Your task to perform on an android device: turn pop-ups off in chrome Image 0: 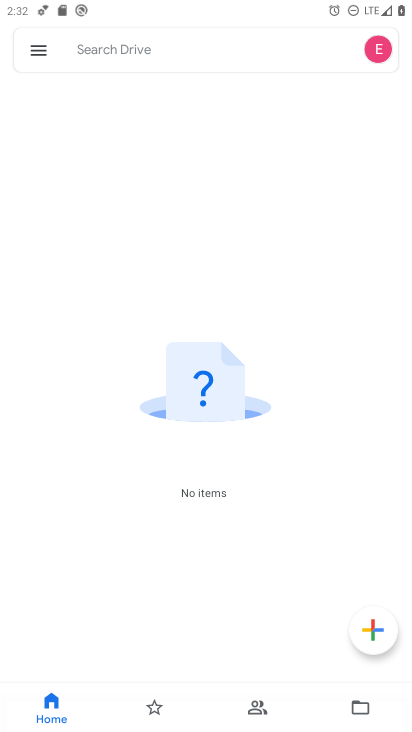
Step 0: press home button
Your task to perform on an android device: turn pop-ups off in chrome Image 1: 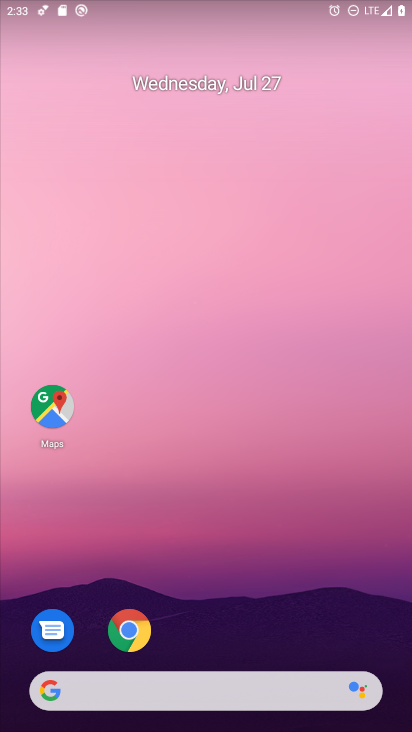
Step 1: click (131, 634)
Your task to perform on an android device: turn pop-ups off in chrome Image 2: 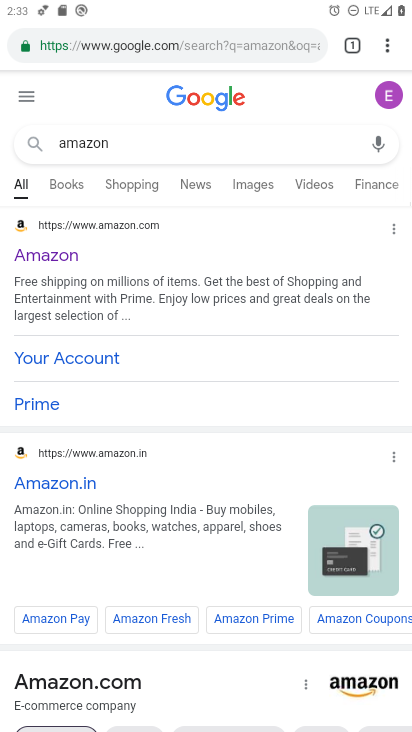
Step 2: click (387, 46)
Your task to perform on an android device: turn pop-ups off in chrome Image 3: 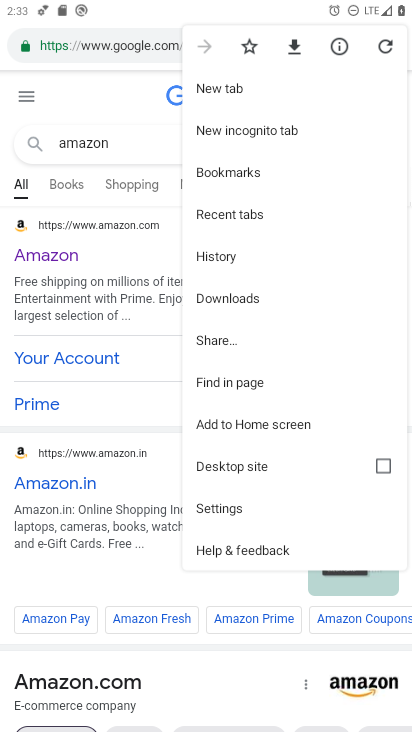
Step 3: click (229, 502)
Your task to perform on an android device: turn pop-ups off in chrome Image 4: 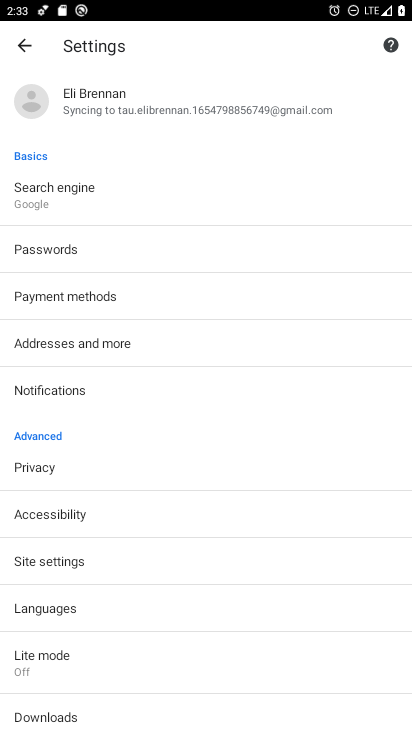
Step 4: click (39, 562)
Your task to perform on an android device: turn pop-ups off in chrome Image 5: 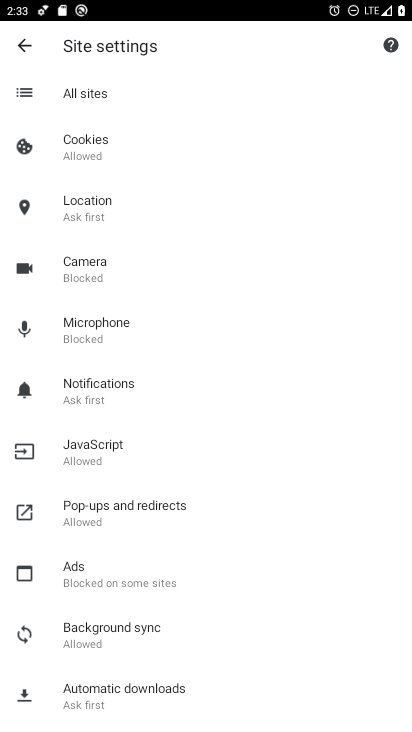
Step 5: click (102, 507)
Your task to perform on an android device: turn pop-ups off in chrome Image 6: 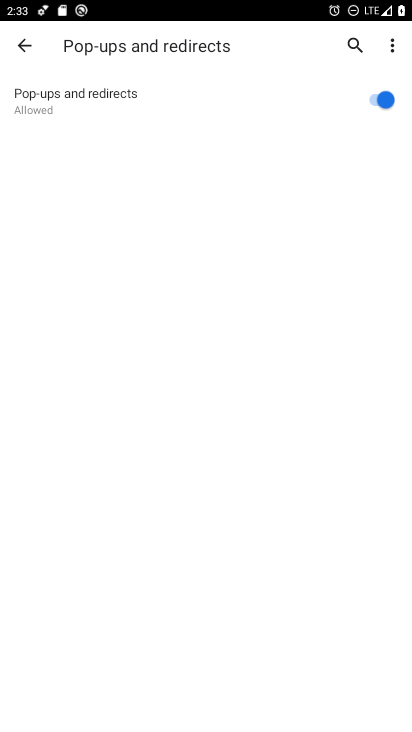
Step 6: click (371, 96)
Your task to perform on an android device: turn pop-ups off in chrome Image 7: 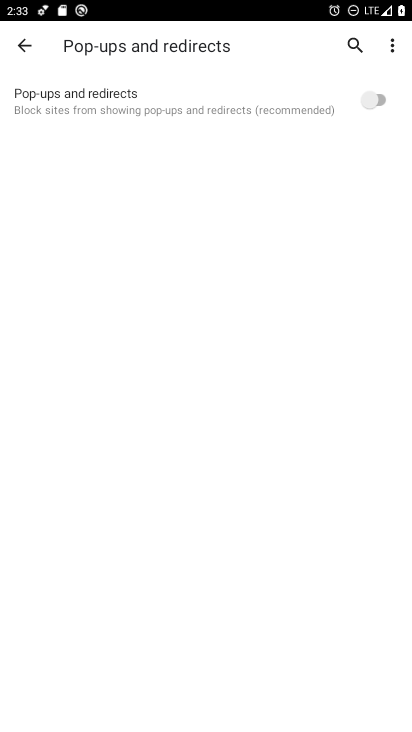
Step 7: task complete